Your task to perform on an android device: open a bookmark in the chrome app Image 0: 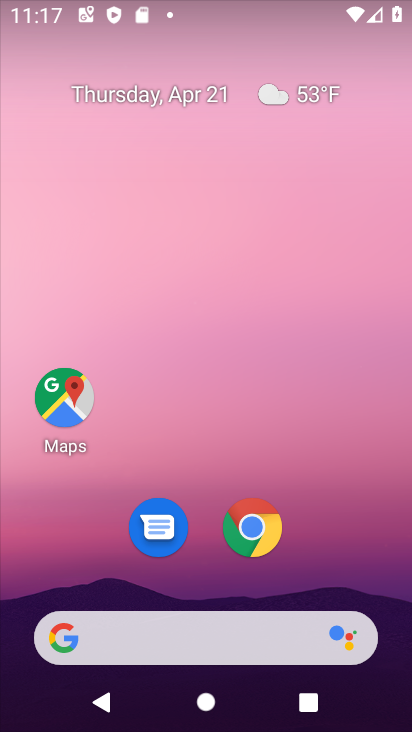
Step 0: drag from (376, 571) to (362, 170)
Your task to perform on an android device: open a bookmark in the chrome app Image 1: 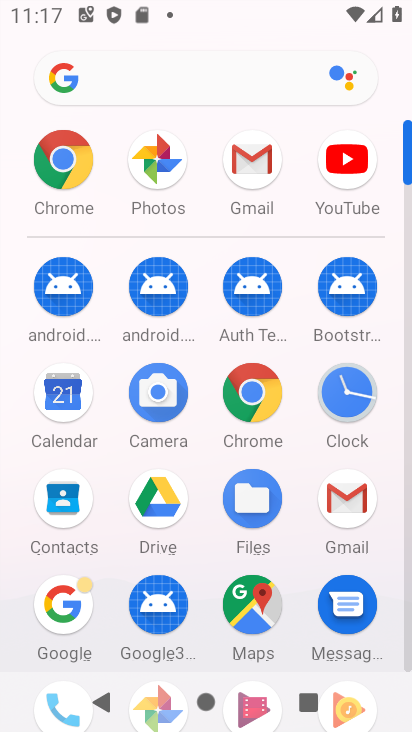
Step 1: click (254, 412)
Your task to perform on an android device: open a bookmark in the chrome app Image 2: 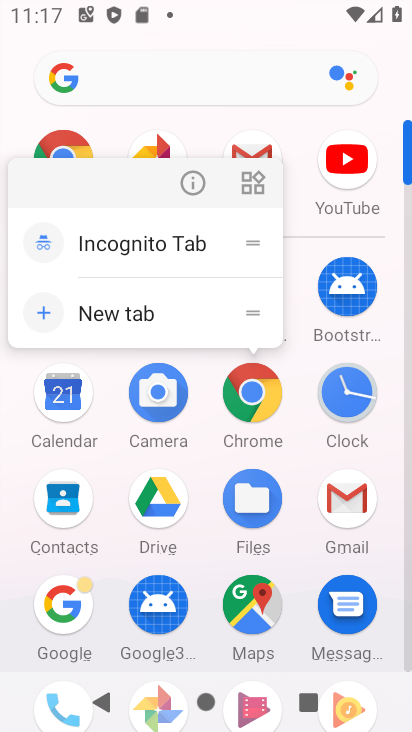
Step 2: click (257, 399)
Your task to perform on an android device: open a bookmark in the chrome app Image 3: 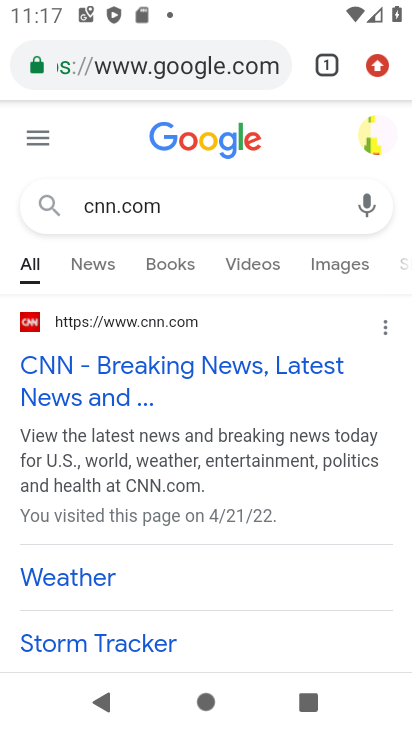
Step 3: click (381, 63)
Your task to perform on an android device: open a bookmark in the chrome app Image 4: 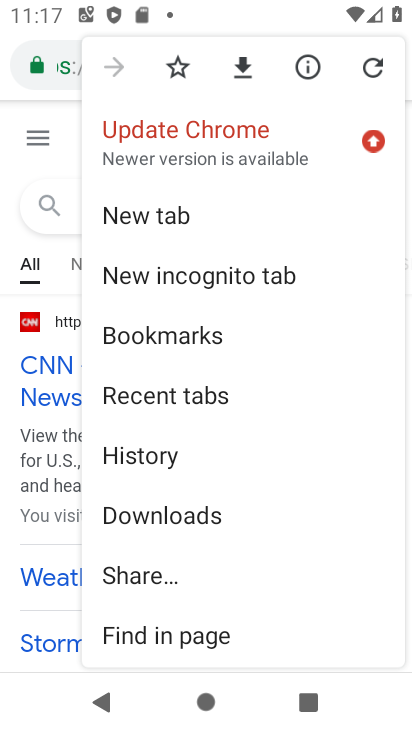
Step 4: drag from (330, 559) to (323, 411)
Your task to perform on an android device: open a bookmark in the chrome app Image 5: 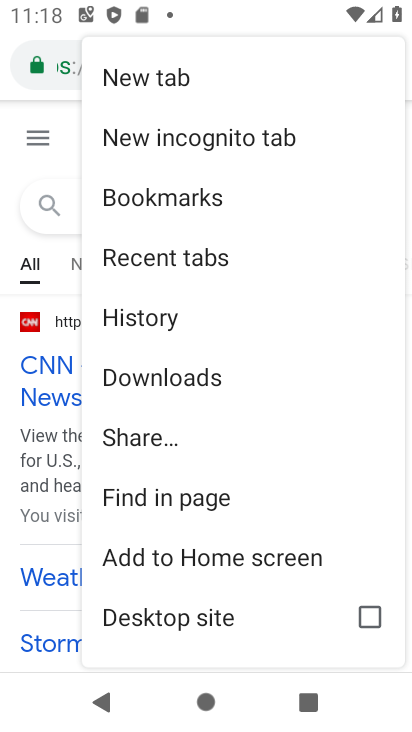
Step 5: drag from (328, 566) to (330, 379)
Your task to perform on an android device: open a bookmark in the chrome app Image 6: 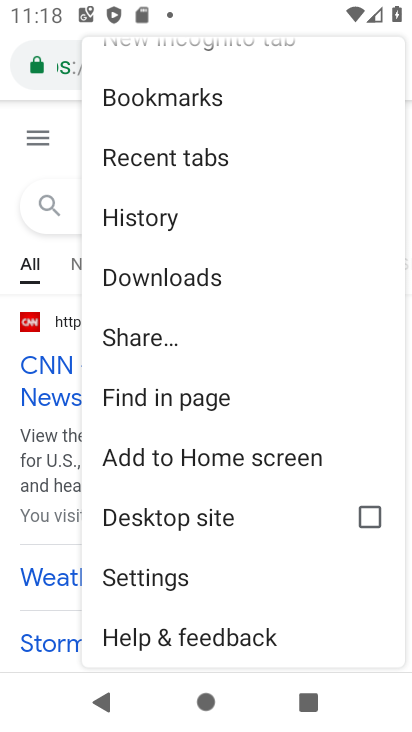
Step 6: drag from (328, 311) to (322, 436)
Your task to perform on an android device: open a bookmark in the chrome app Image 7: 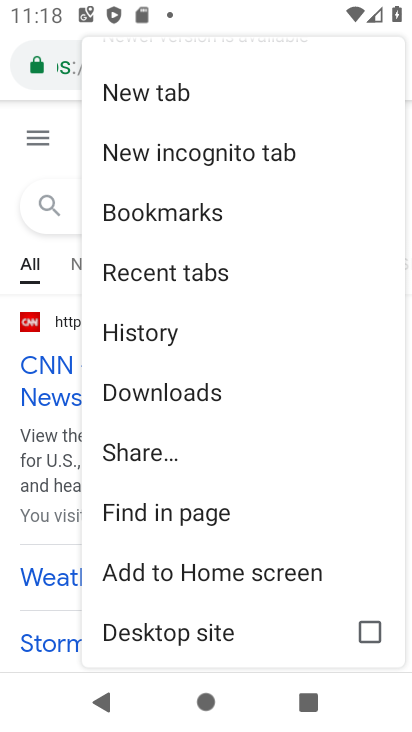
Step 7: drag from (319, 336) to (318, 457)
Your task to perform on an android device: open a bookmark in the chrome app Image 8: 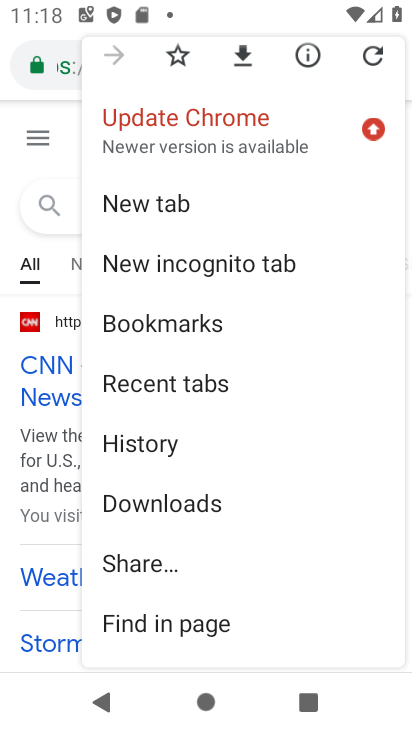
Step 8: drag from (313, 351) to (311, 445)
Your task to perform on an android device: open a bookmark in the chrome app Image 9: 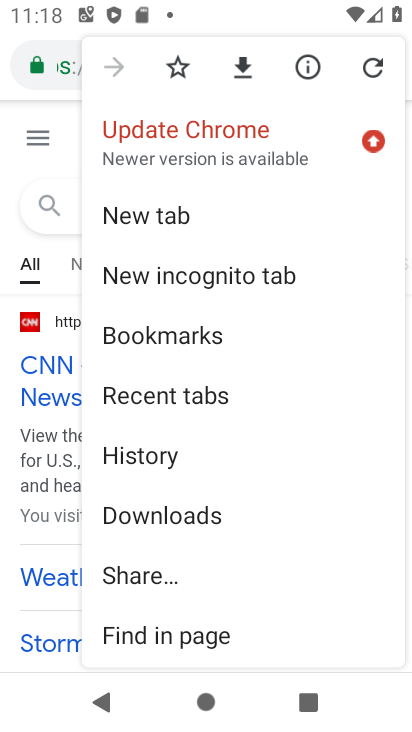
Step 9: click (207, 331)
Your task to perform on an android device: open a bookmark in the chrome app Image 10: 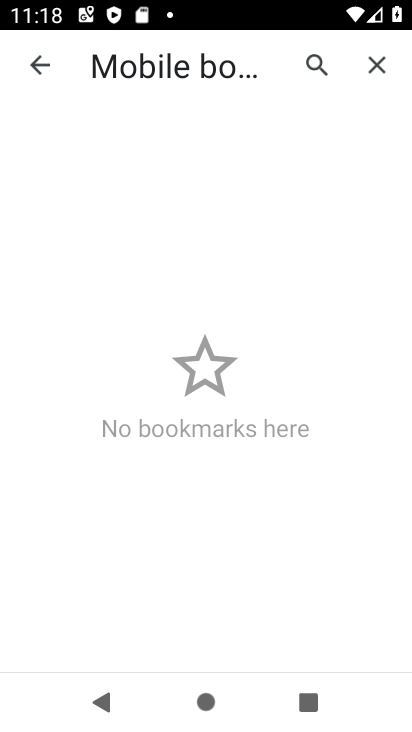
Step 10: task complete